Your task to perform on an android device: Search for Mexican restaurants on Maps Image 0: 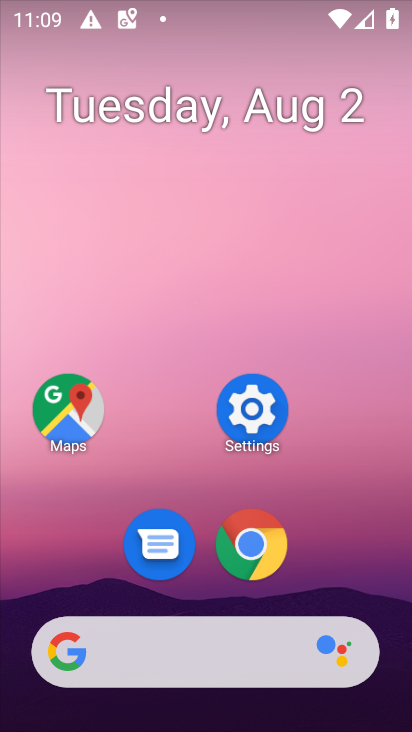
Step 0: click (67, 408)
Your task to perform on an android device: Search for Mexican restaurants on Maps Image 1: 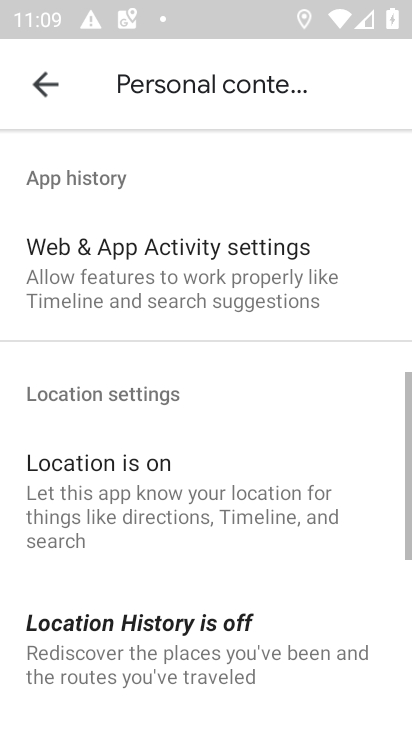
Step 1: click (41, 90)
Your task to perform on an android device: Search for Mexican restaurants on Maps Image 2: 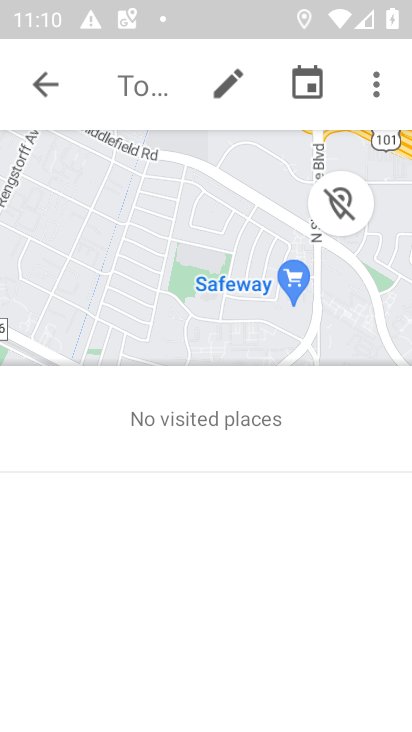
Step 2: click (47, 88)
Your task to perform on an android device: Search for Mexican restaurants on Maps Image 3: 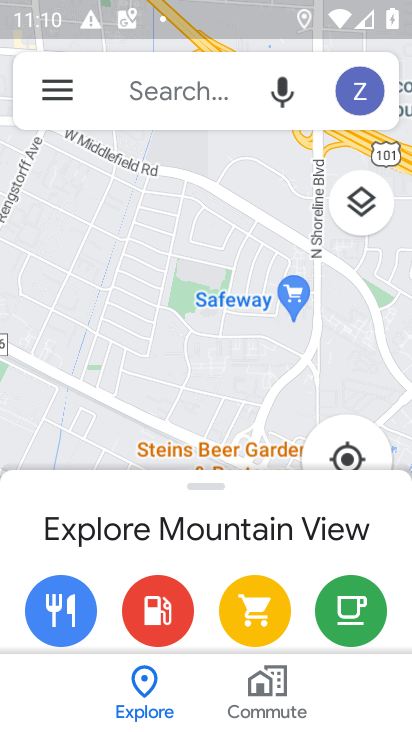
Step 3: click (135, 85)
Your task to perform on an android device: Search for Mexican restaurants on Maps Image 4: 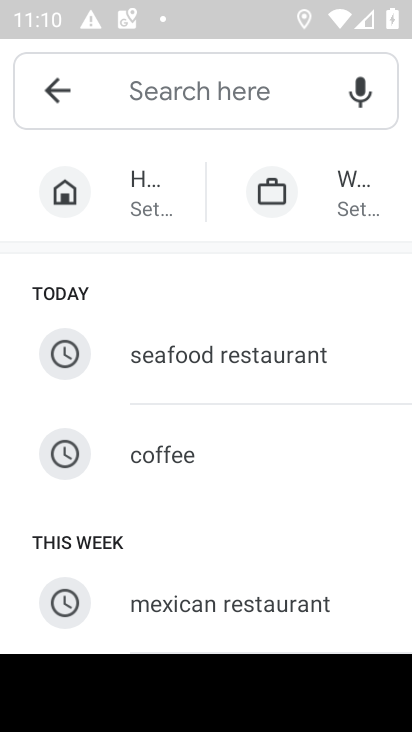
Step 4: type "Mexican restaurants"
Your task to perform on an android device: Search for Mexican restaurants on Maps Image 5: 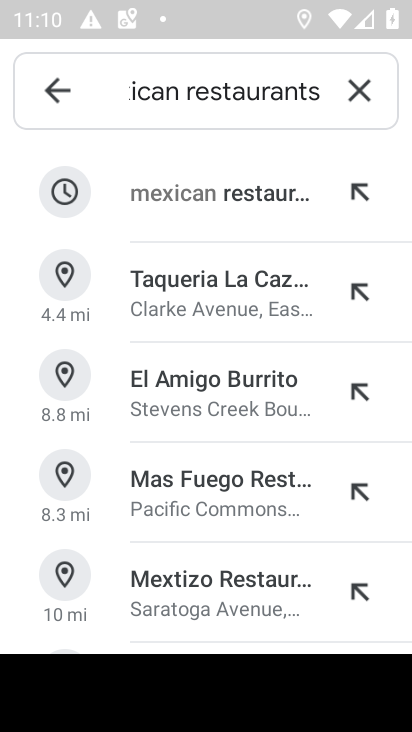
Step 5: click (235, 194)
Your task to perform on an android device: Search for Mexican restaurants on Maps Image 6: 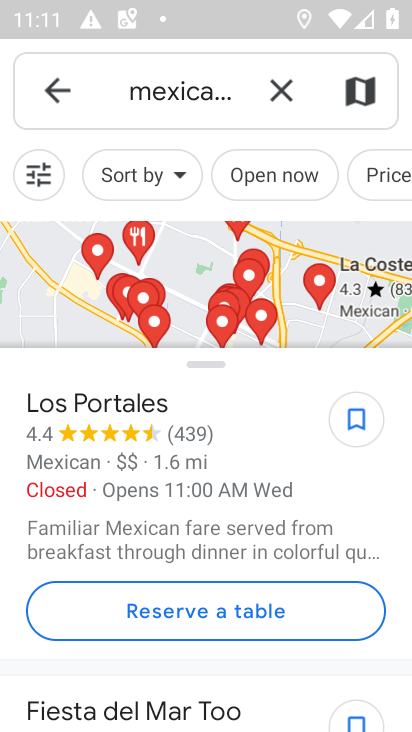
Step 6: task complete